Your task to perform on an android device: change notification settings in the gmail app Image 0: 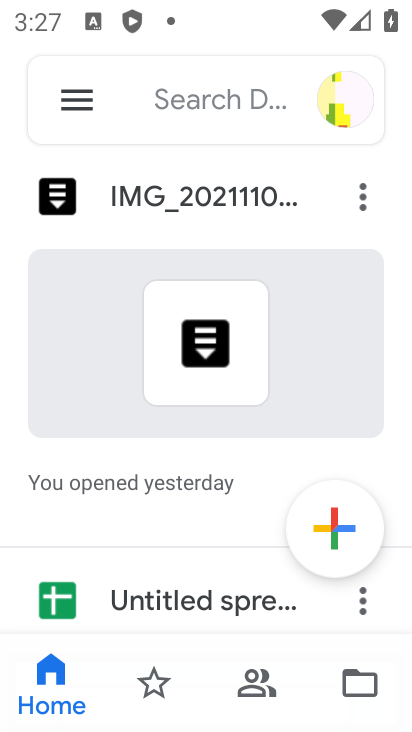
Step 0: press home button
Your task to perform on an android device: change notification settings in the gmail app Image 1: 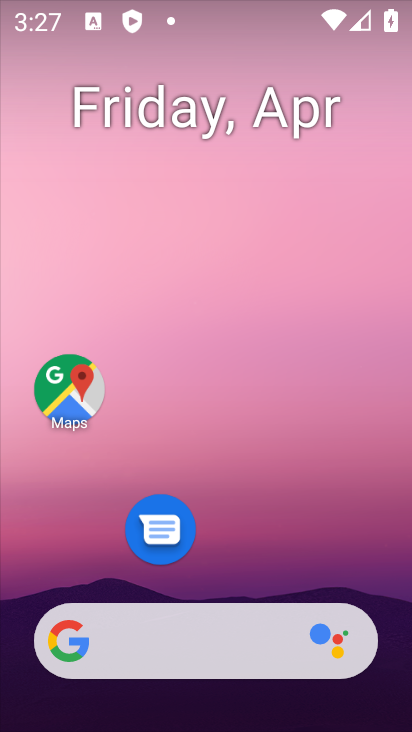
Step 1: drag from (215, 633) to (308, 101)
Your task to perform on an android device: change notification settings in the gmail app Image 2: 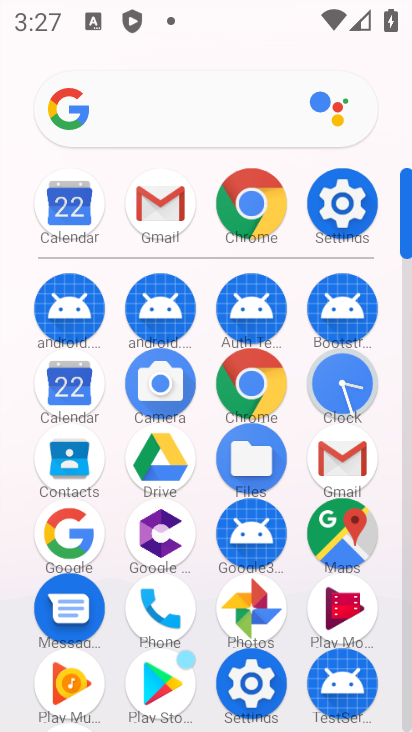
Step 2: click (361, 478)
Your task to perform on an android device: change notification settings in the gmail app Image 3: 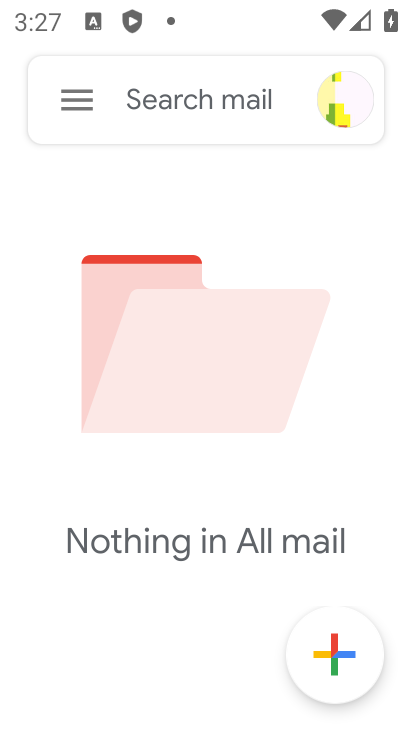
Step 3: click (87, 110)
Your task to perform on an android device: change notification settings in the gmail app Image 4: 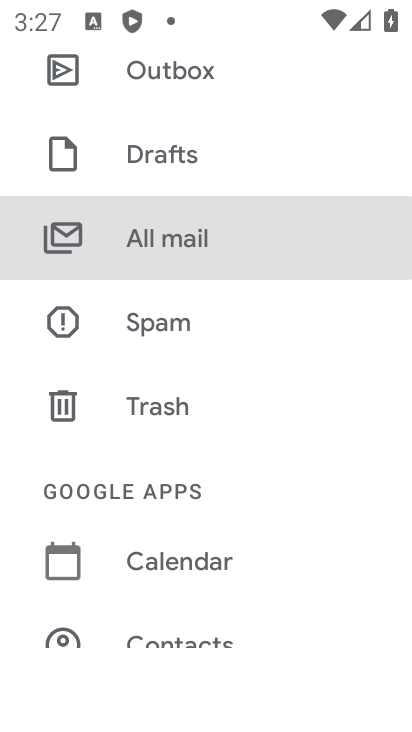
Step 4: drag from (212, 522) to (347, 102)
Your task to perform on an android device: change notification settings in the gmail app Image 5: 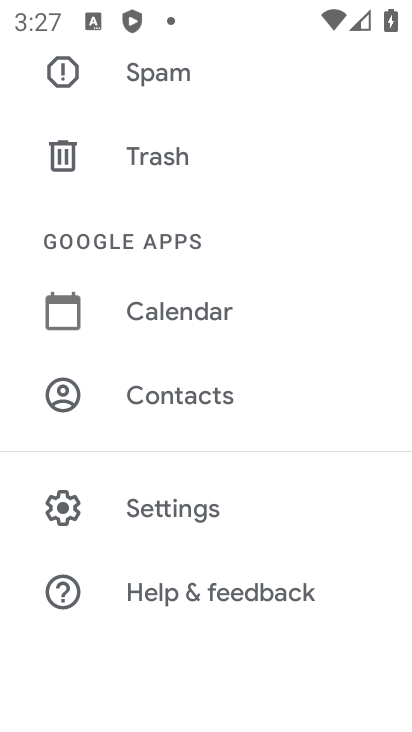
Step 5: click (225, 514)
Your task to perform on an android device: change notification settings in the gmail app Image 6: 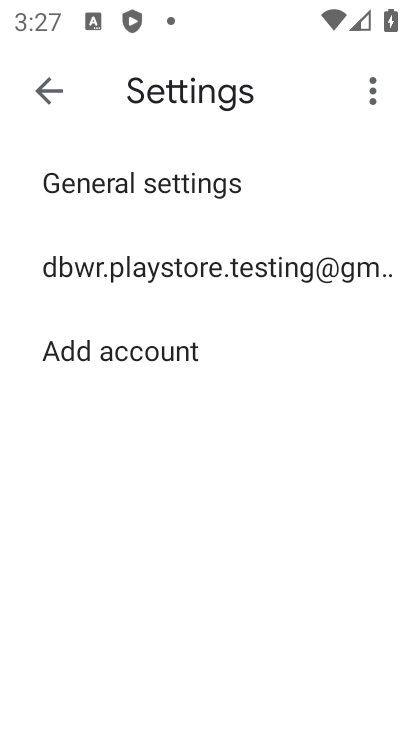
Step 6: click (227, 199)
Your task to perform on an android device: change notification settings in the gmail app Image 7: 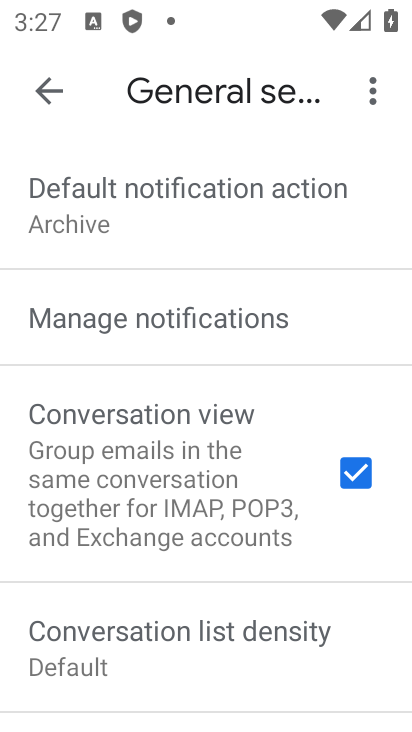
Step 7: click (221, 330)
Your task to perform on an android device: change notification settings in the gmail app Image 8: 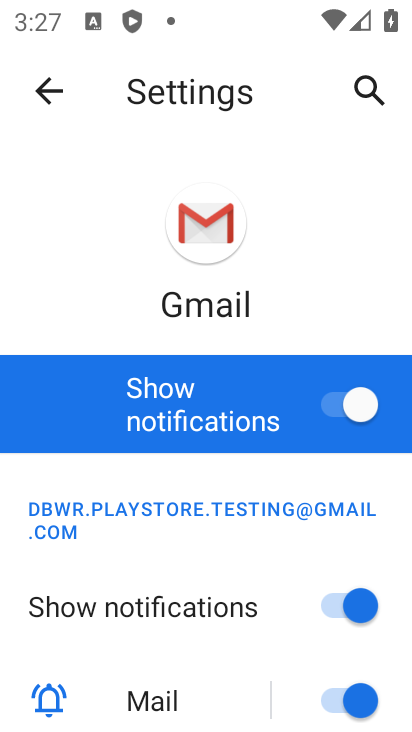
Step 8: click (346, 406)
Your task to perform on an android device: change notification settings in the gmail app Image 9: 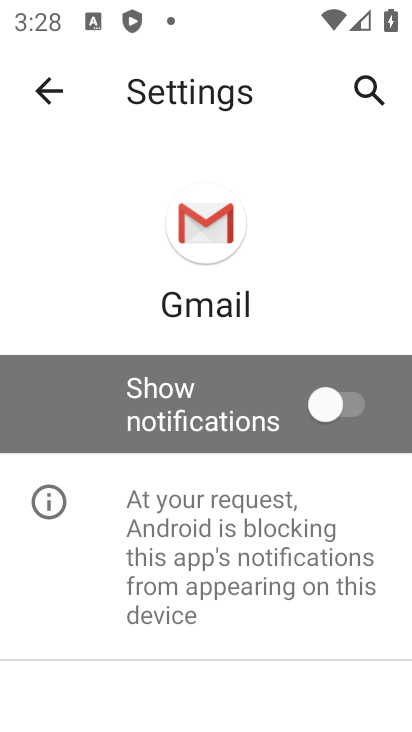
Step 9: task complete